Your task to perform on an android device: allow cookies in the chrome app Image 0: 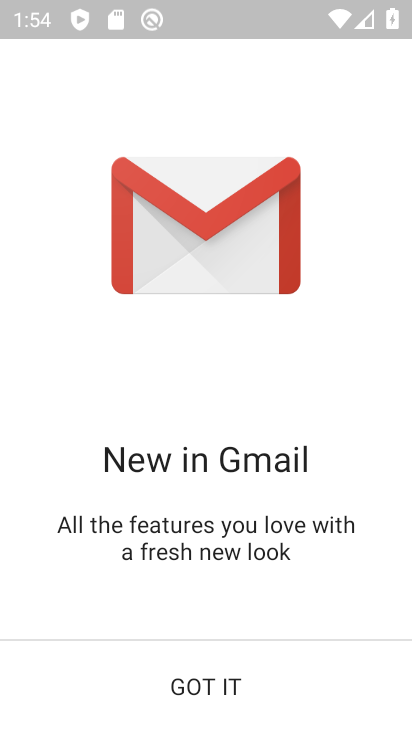
Step 0: press home button
Your task to perform on an android device: allow cookies in the chrome app Image 1: 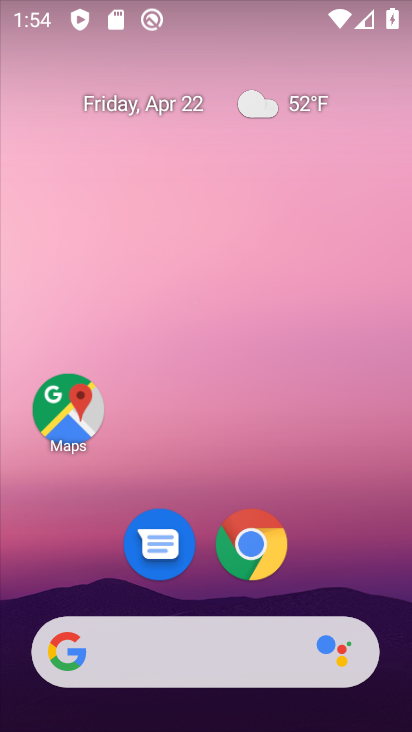
Step 1: drag from (308, 550) to (311, 174)
Your task to perform on an android device: allow cookies in the chrome app Image 2: 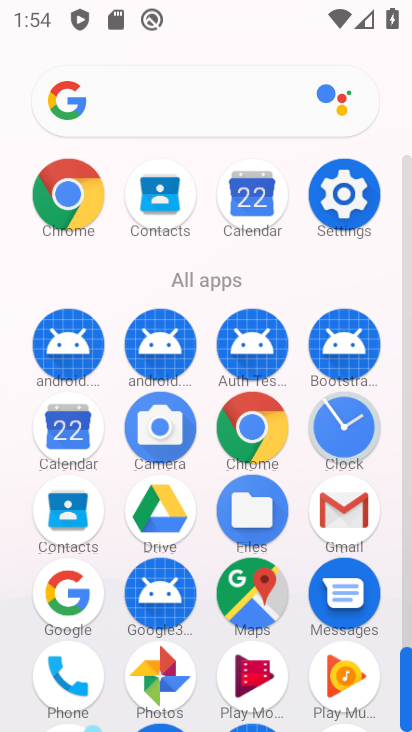
Step 2: click (252, 422)
Your task to perform on an android device: allow cookies in the chrome app Image 3: 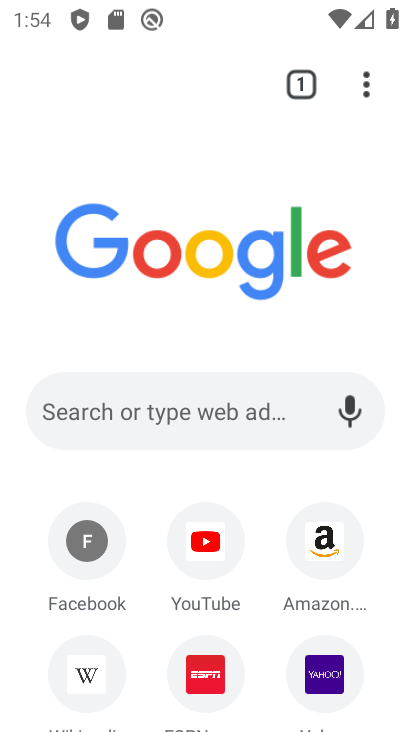
Step 3: drag from (370, 72) to (171, 578)
Your task to perform on an android device: allow cookies in the chrome app Image 4: 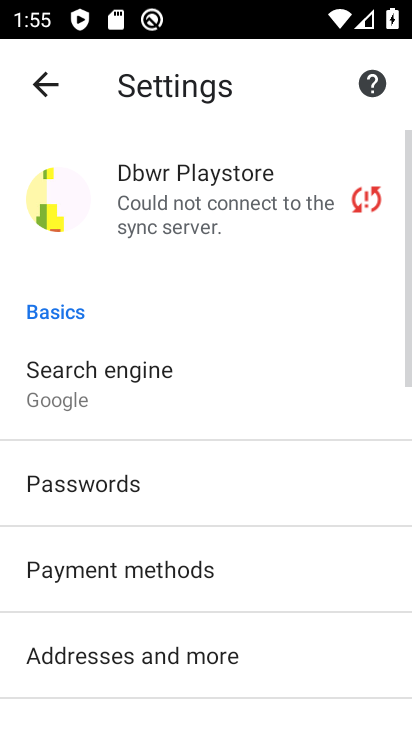
Step 4: drag from (174, 536) to (294, 143)
Your task to perform on an android device: allow cookies in the chrome app Image 5: 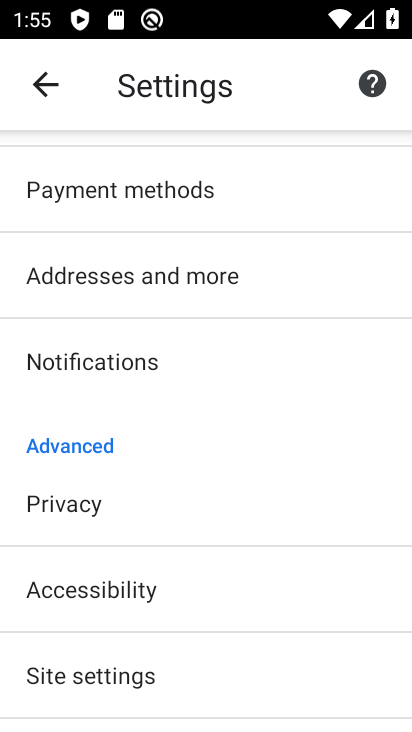
Step 5: drag from (132, 465) to (315, 166)
Your task to perform on an android device: allow cookies in the chrome app Image 6: 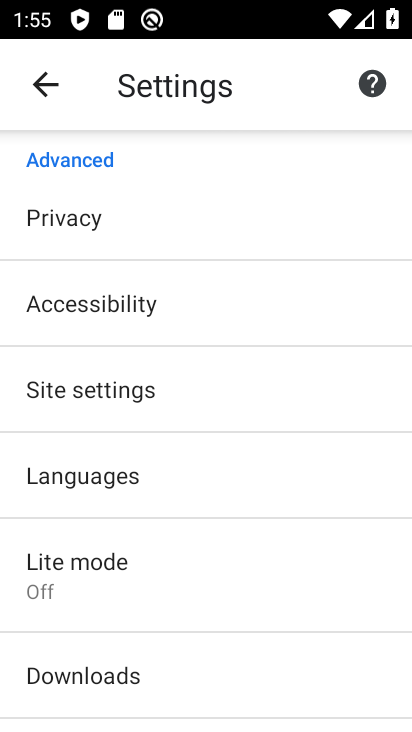
Step 6: drag from (110, 511) to (323, 210)
Your task to perform on an android device: allow cookies in the chrome app Image 7: 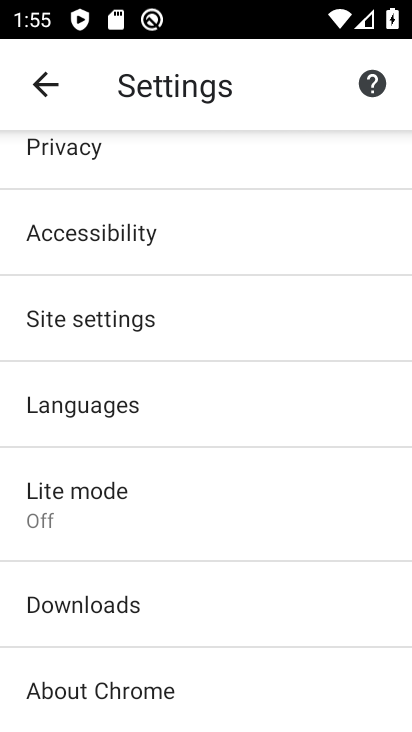
Step 7: drag from (318, 212) to (177, 661)
Your task to perform on an android device: allow cookies in the chrome app Image 8: 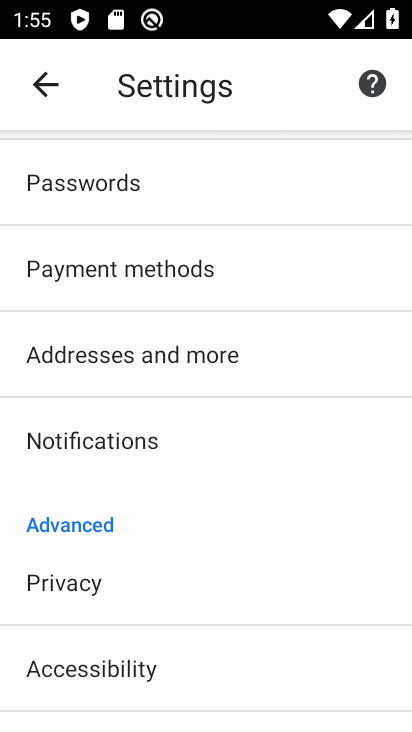
Step 8: drag from (237, 278) to (179, 631)
Your task to perform on an android device: allow cookies in the chrome app Image 9: 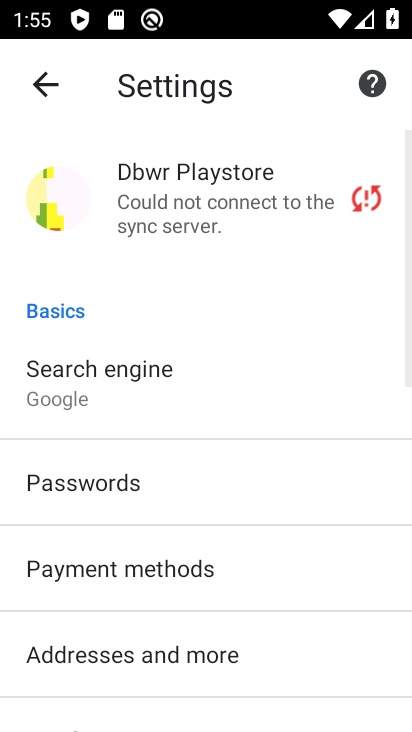
Step 9: drag from (186, 602) to (305, 229)
Your task to perform on an android device: allow cookies in the chrome app Image 10: 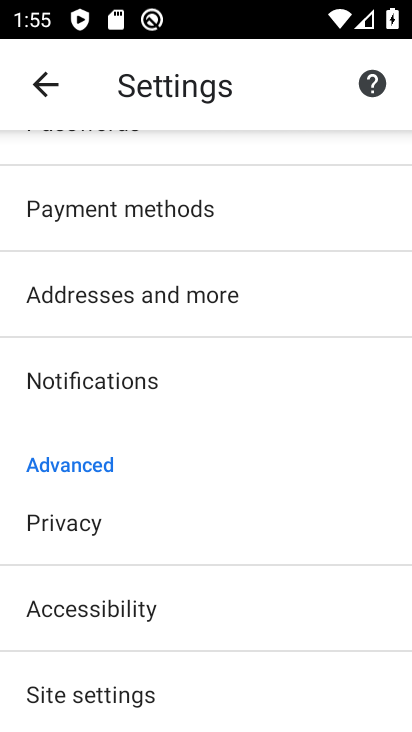
Step 10: drag from (176, 481) to (336, 206)
Your task to perform on an android device: allow cookies in the chrome app Image 11: 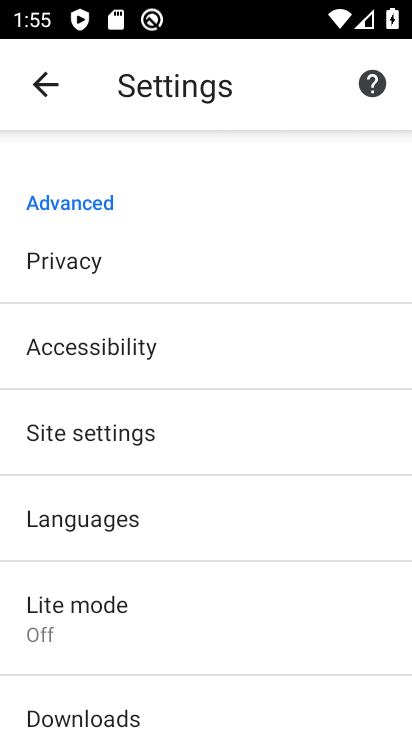
Step 11: click (144, 434)
Your task to perform on an android device: allow cookies in the chrome app Image 12: 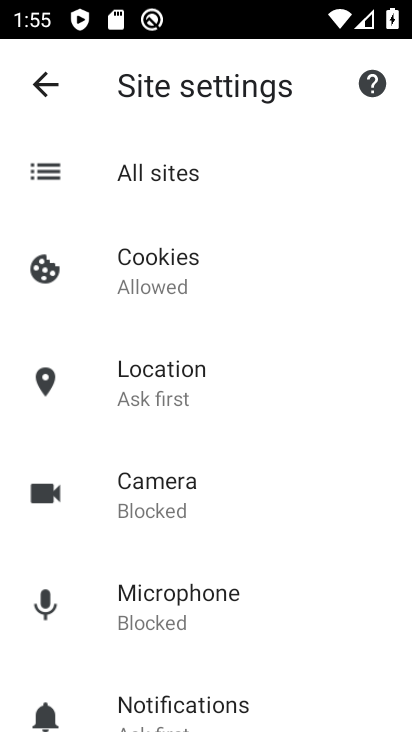
Step 12: click (184, 268)
Your task to perform on an android device: allow cookies in the chrome app Image 13: 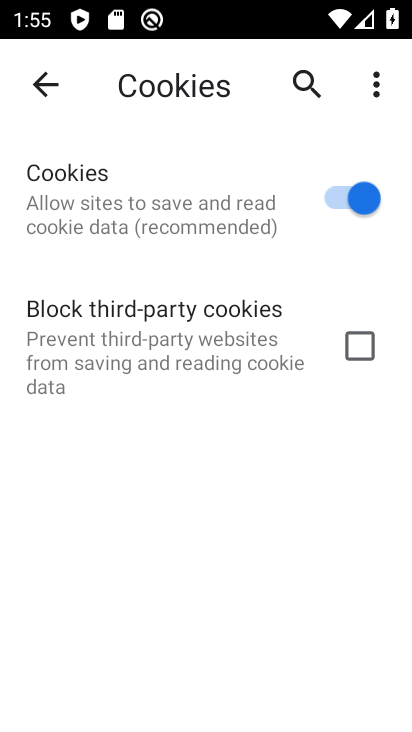
Step 13: task complete